Your task to perform on an android device: open device folders in google photos Image 0: 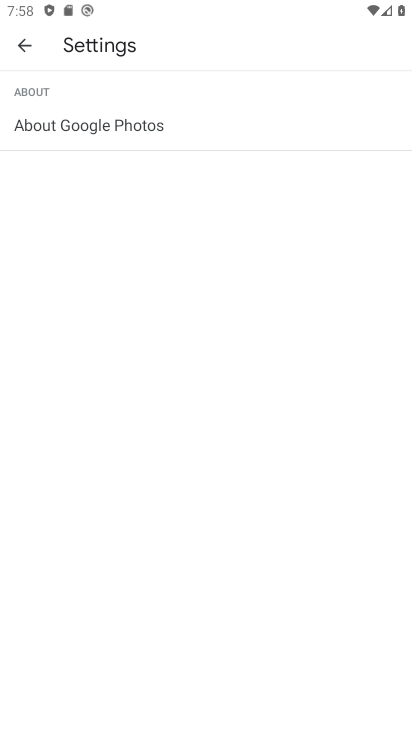
Step 0: press home button
Your task to perform on an android device: open device folders in google photos Image 1: 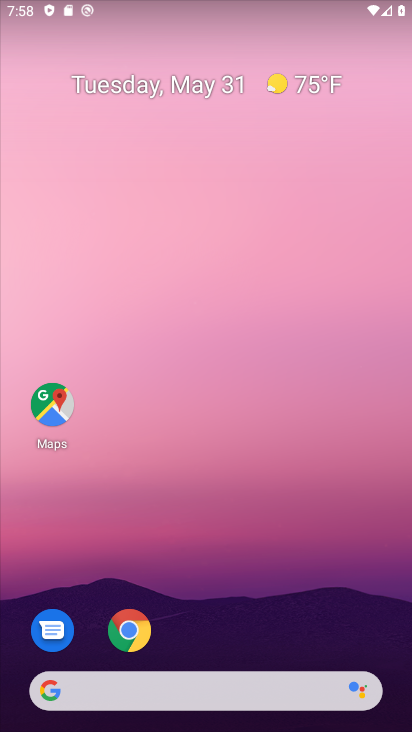
Step 1: drag from (245, 636) to (307, 165)
Your task to perform on an android device: open device folders in google photos Image 2: 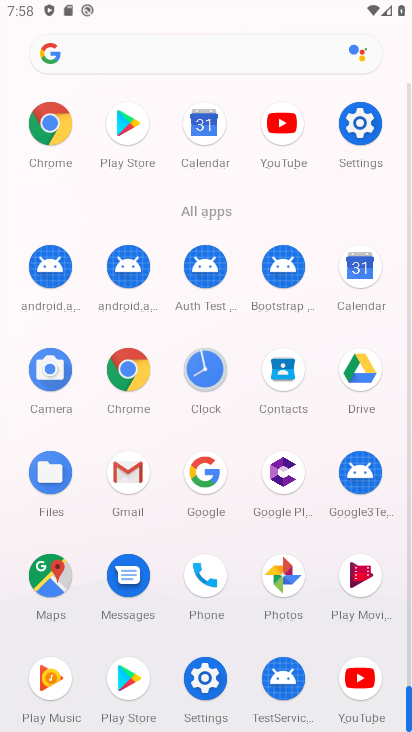
Step 2: click (269, 592)
Your task to perform on an android device: open device folders in google photos Image 3: 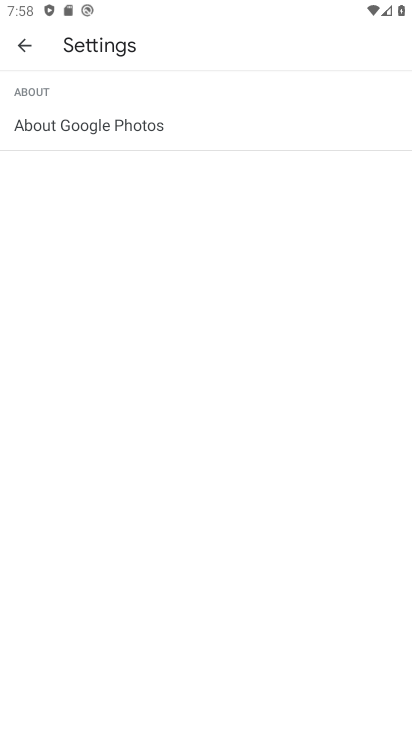
Step 3: click (24, 47)
Your task to perform on an android device: open device folders in google photos Image 4: 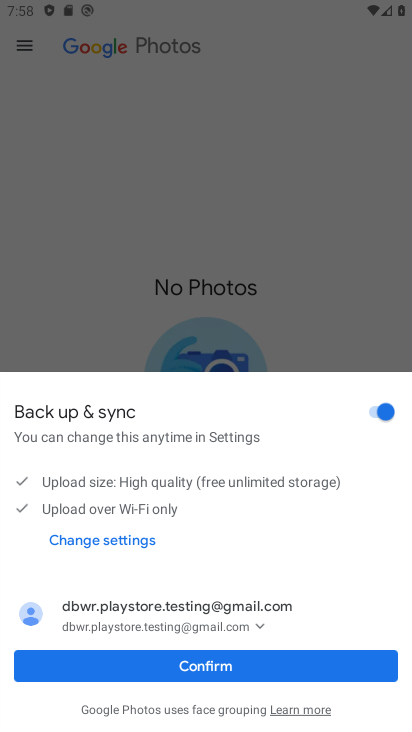
Step 4: click (226, 672)
Your task to perform on an android device: open device folders in google photos Image 5: 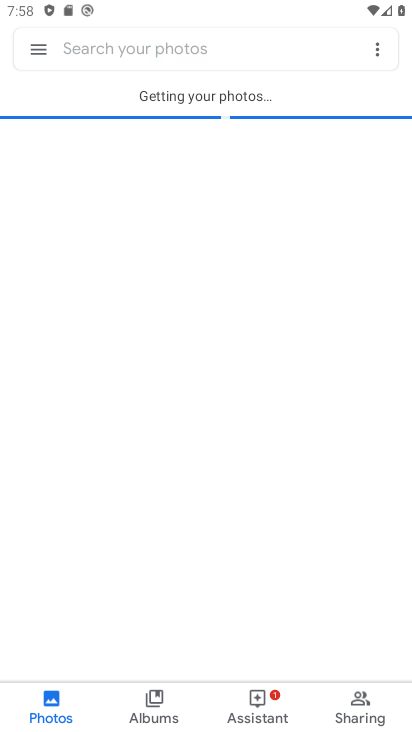
Step 5: click (33, 49)
Your task to perform on an android device: open device folders in google photos Image 6: 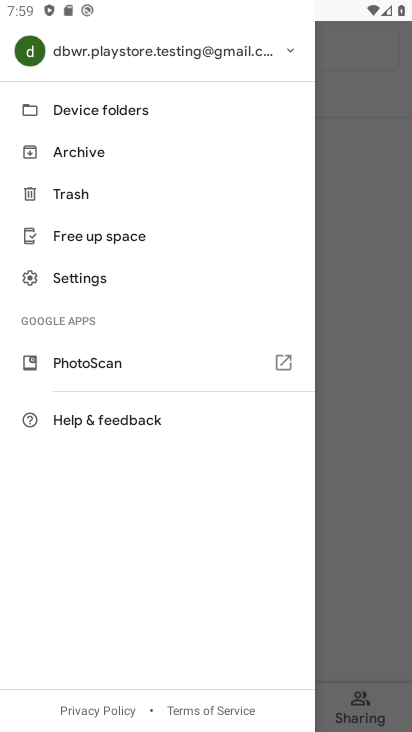
Step 6: click (86, 115)
Your task to perform on an android device: open device folders in google photos Image 7: 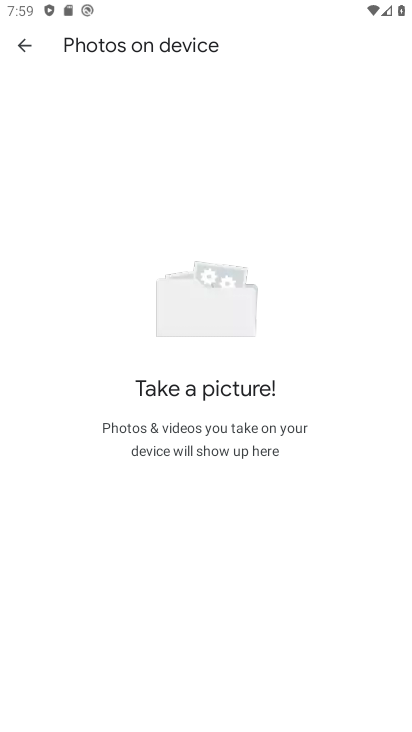
Step 7: task complete